Your task to perform on an android device: stop showing notifications on the lock screen Image 0: 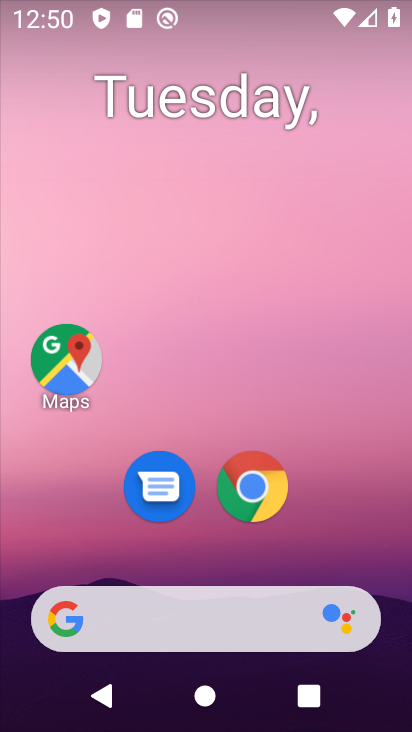
Step 0: drag from (399, 552) to (322, 99)
Your task to perform on an android device: stop showing notifications on the lock screen Image 1: 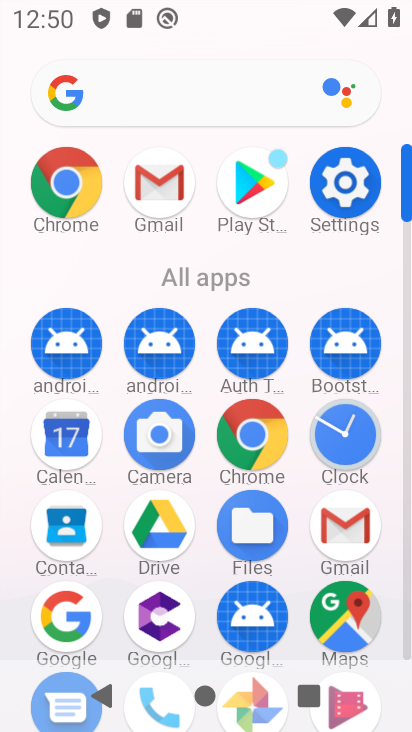
Step 1: click (365, 200)
Your task to perform on an android device: stop showing notifications on the lock screen Image 2: 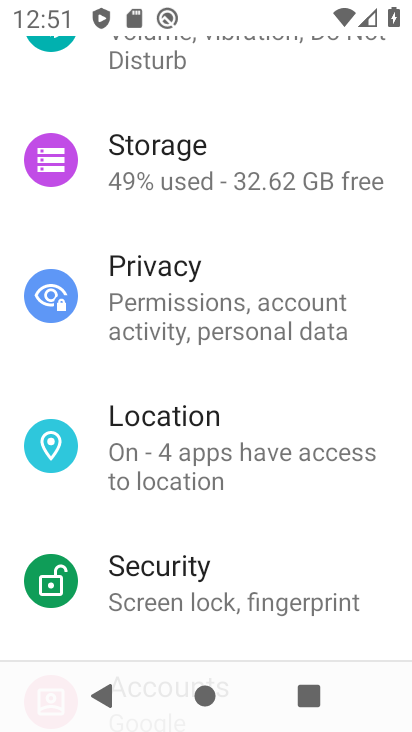
Step 2: drag from (246, 244) to (213, 731)
Your task to perform on an android device: stop showing notifications on the lock screen Image 3: 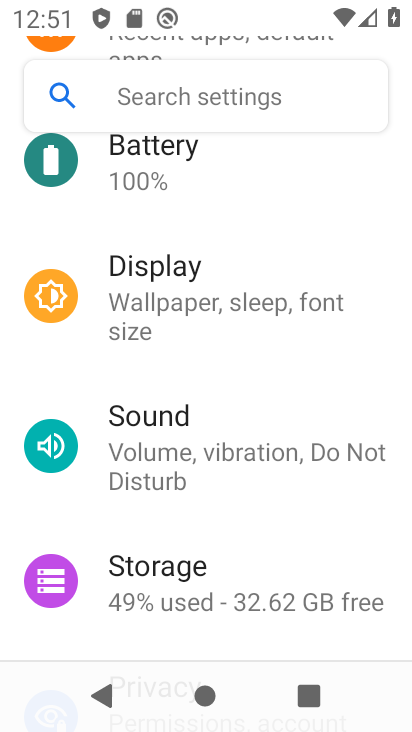
Step 3: drag from (268, 525) to (265, 660)
Your task to perform on an android device: stop showing notifications on the lock screen Image 4: 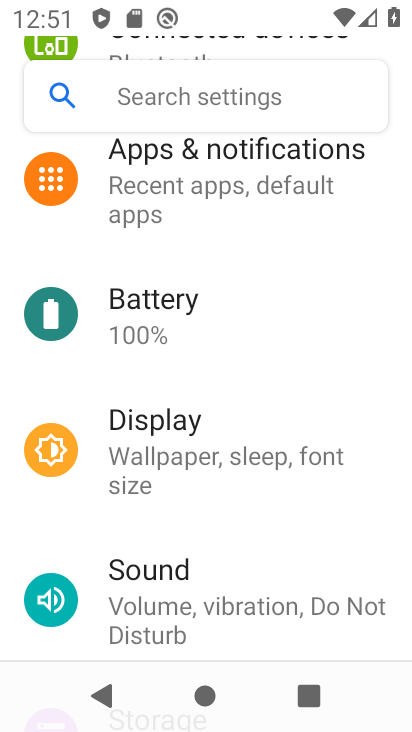
Step 4: click (244, 181)
Your task to perform on an android device: stop showing notifications on the lock screen Image 5: 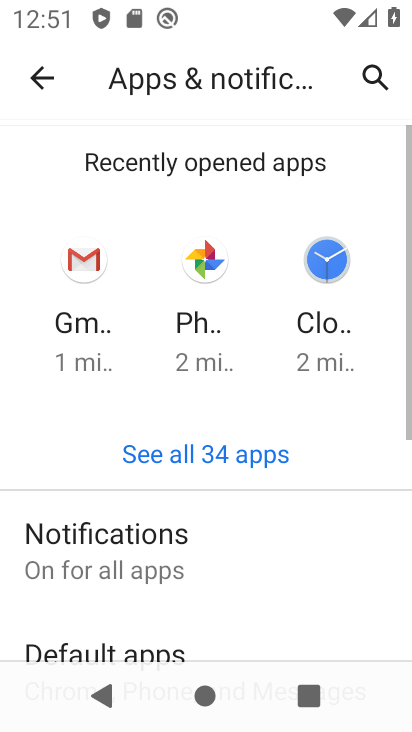
Step 5: click (238, 553)
Your task to perform on an android device: stop showing notifications on the lock screen Image 6: 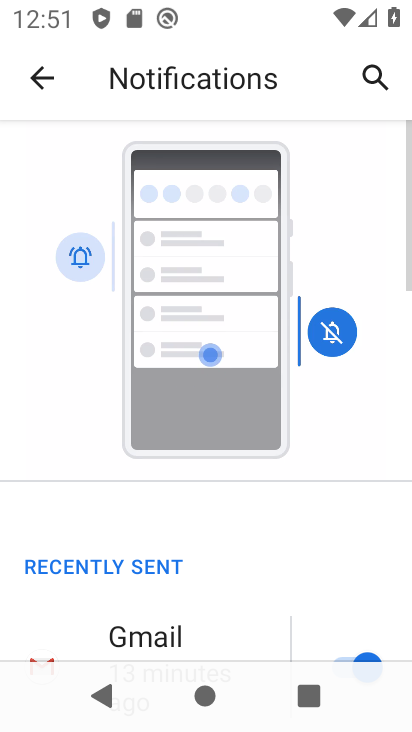
Step 6: drag from (238, 553) to (227, 185)
Your task to perform on an android device: stop showing notifications on the lock screen Image 7: 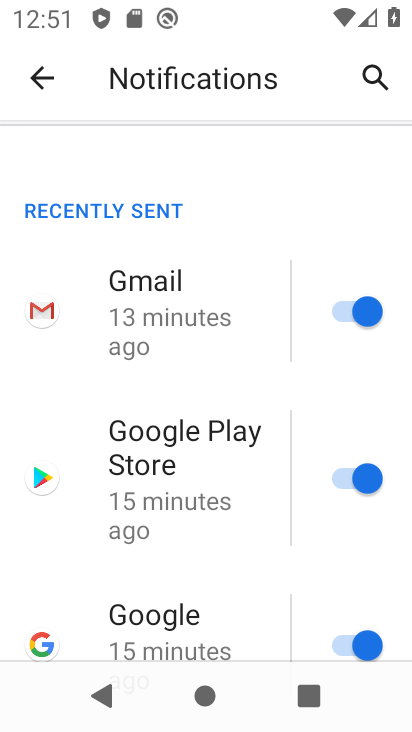
Step 7: drag from (245, 564) to (229, 195)
Your task to perform on an android device: stop showing notifications on the lock screen Image 8: 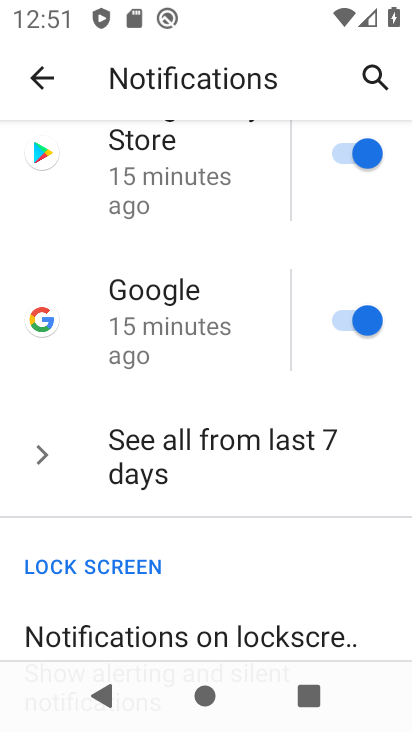
Step 8: drag from (251, 585) to (228, 309)
Your task to perform on an android device: stop showing notifications on the lock screen Image 9: 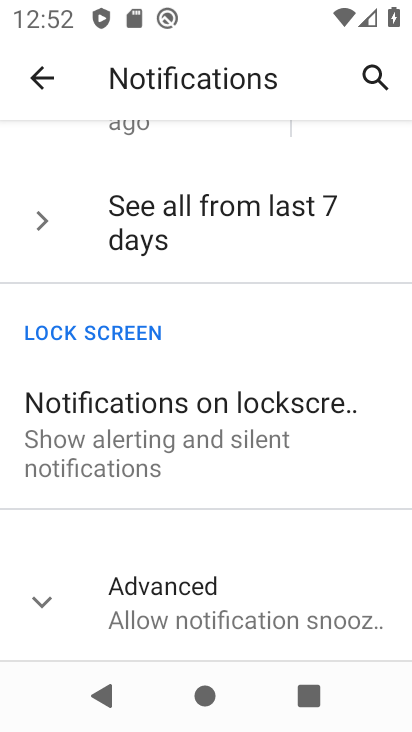
Step 9: click (249, 399)
Your task to perform on an android device: stop showing notifications on the lock screen Image 10: 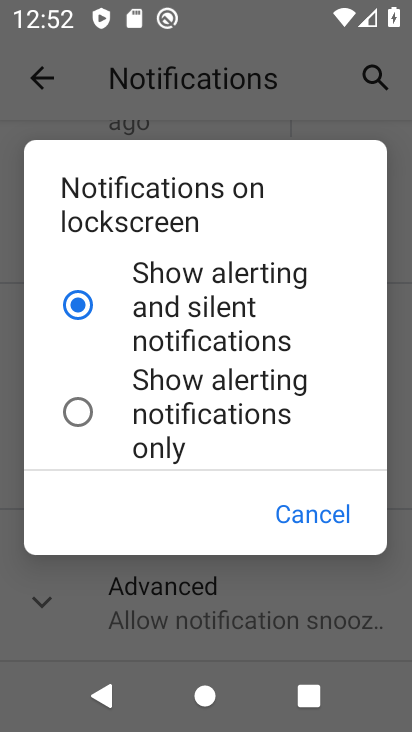
Step 10: drag from (212, 412) to (188, 264)
Your task to perform on an android device: stop showing notifications on the lock screen Image 11: 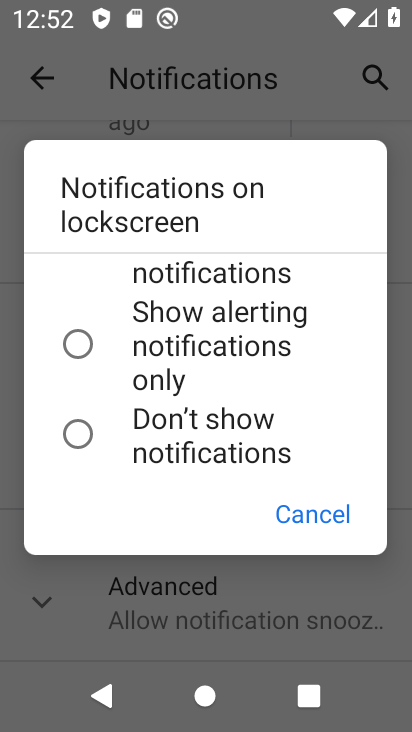
Step 11: click (219, 434)
Your task to perform on an android device: stop showing notifications on the lock screen Image 12: 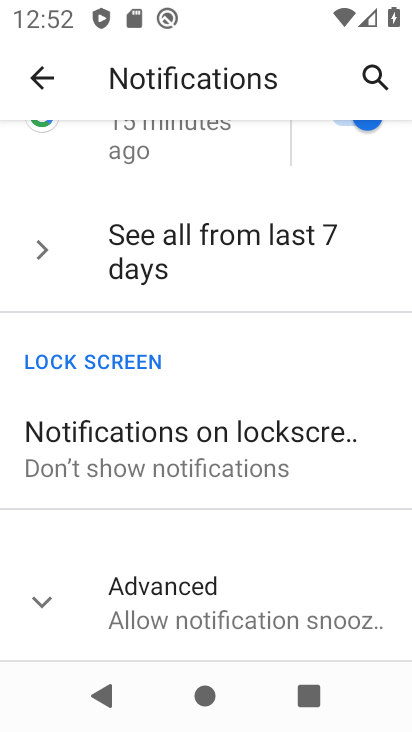
Step 12: task complete